Your task to perform on an android device: see creations saved in the google photos Image 0: 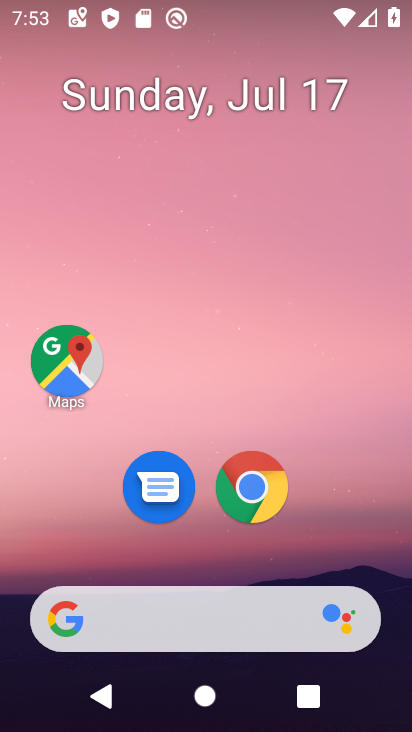
Step 0: drag from (226, 535) to (211, 43)
Your task to perform on an android device: see creations saved in the google photos Image 1: 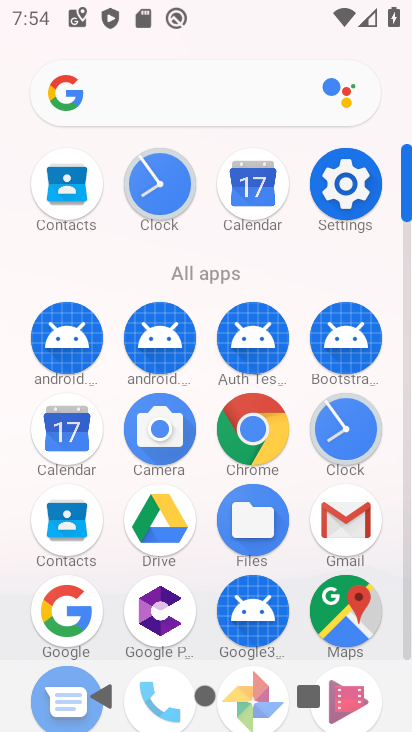
Step 1: drag from (266, 573) to (315, 256)
Your task to perform on an android device: see creations saved in the google photos Image 2: 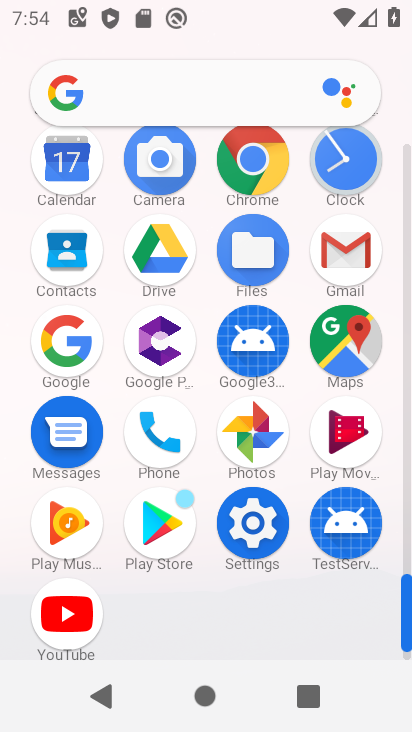
Step 2: click (250, 452)
Your task to perform on an android device: see creations saved in the google photos Image 3: 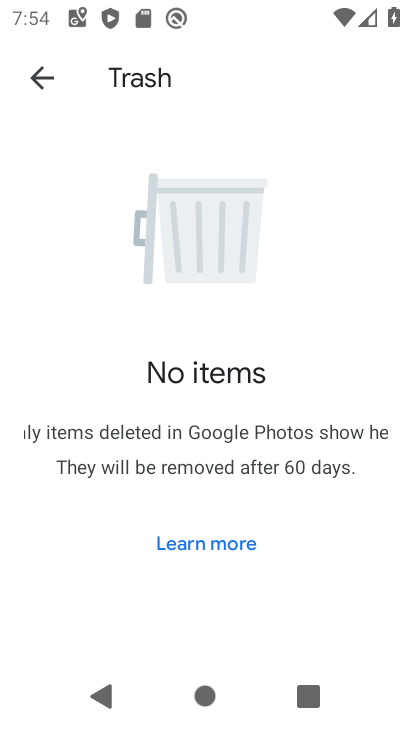
Step 3: click (49, 76)
Your task to perform on an android device: see creations saved in the google photos Image 4: 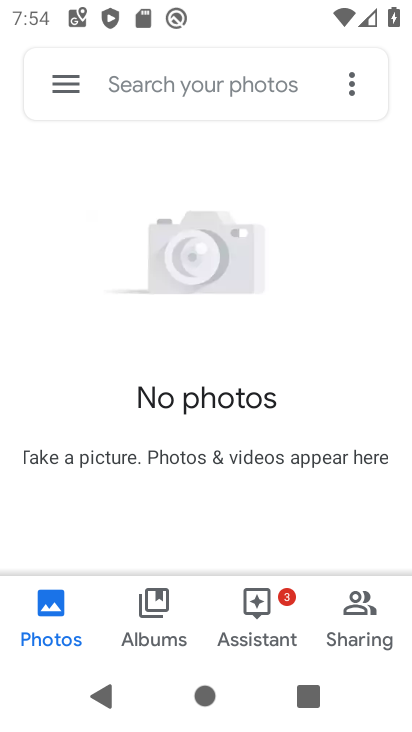
Step 4: click (51, 91)
Your task to perform on an android device: see creations saved in the google photos Image 5: 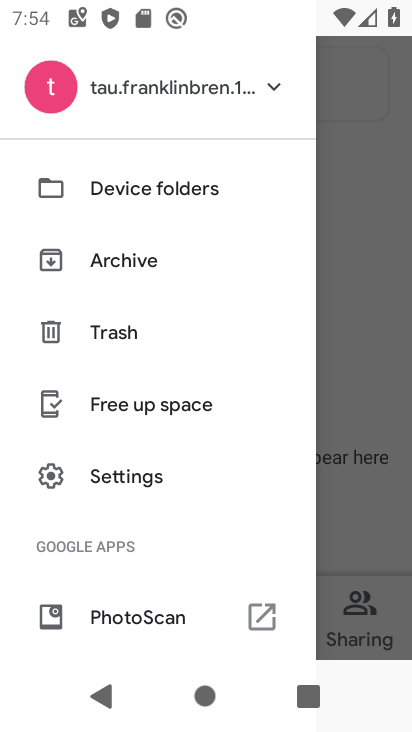
Step 5: click (141, 262)
Your task to perform on an android device: see creations saved in the google photos Image 6: 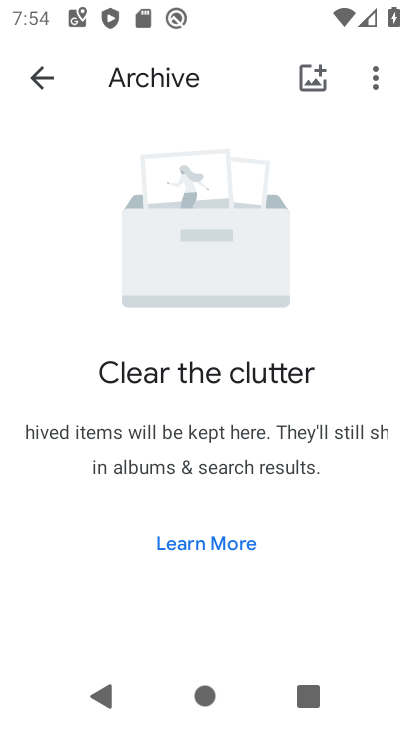
Step 6: task complete